Your task to perform on an android device: change alarm snooze length Image 0: 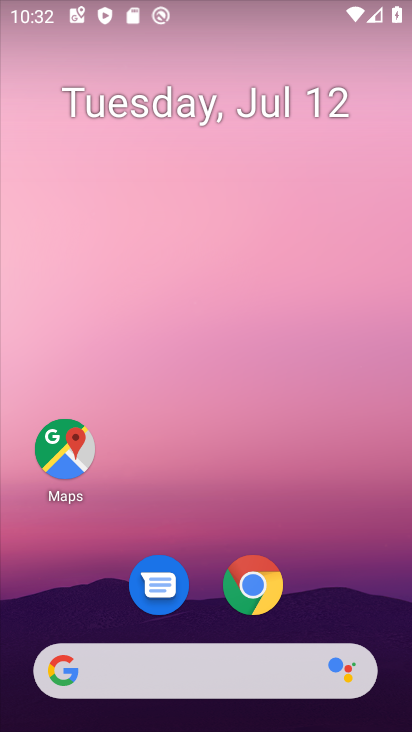
Step 0: drag from (296, 590) to (347, 6)
Your task to perform on an android device: change alarm snooze length Image 1: 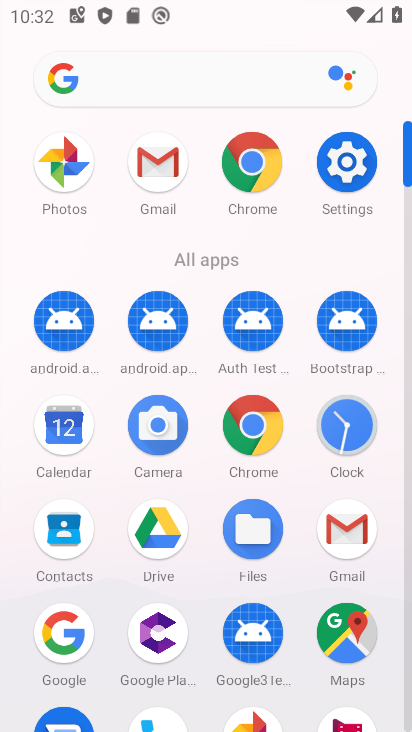
Step 1: click (342, 159)
Your task to perform on an android device: change alarm snooze length Image 2: 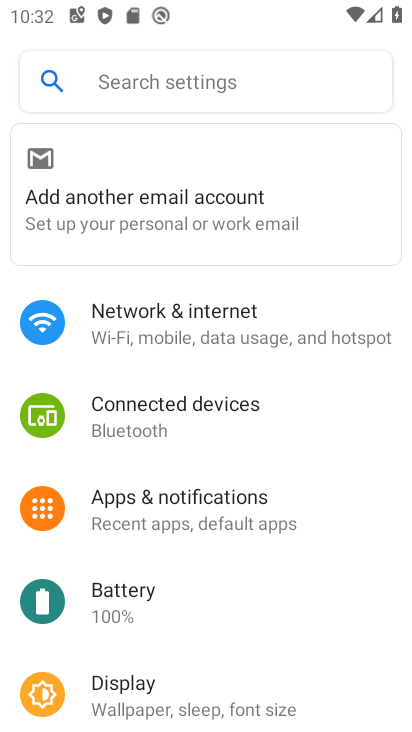
Step 2: press home button
Your task to perform on an android device: change alarm snooze length Image 3: 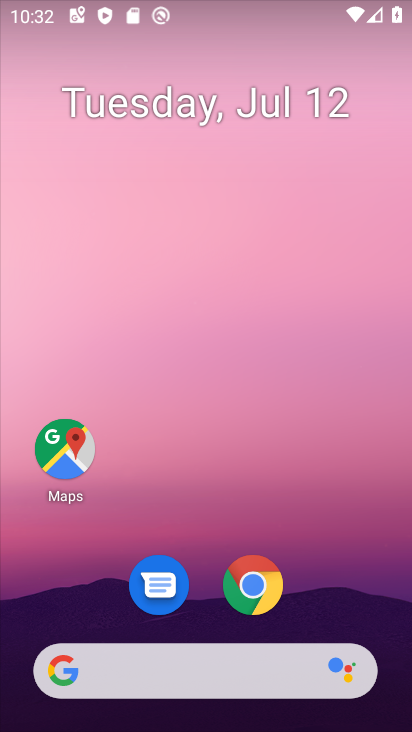
Step 3: drag from (321, 567) to (330, 37)
Your task to perform on an android device: change alarm snooze length Image 4: 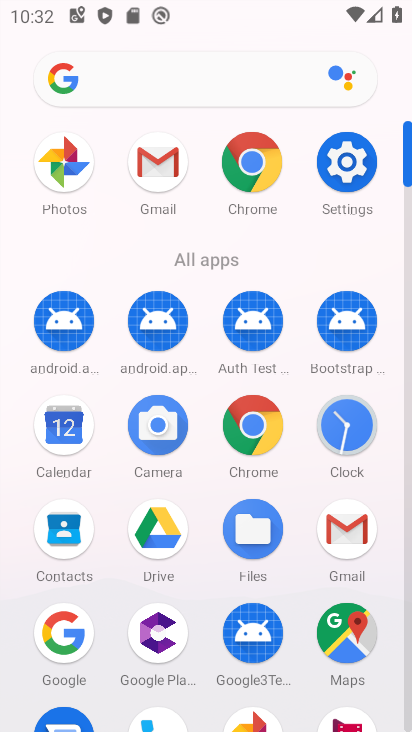
Step 4: click (354, 424)
Your task to perform on an android device: change alarm snooze length Image 5: 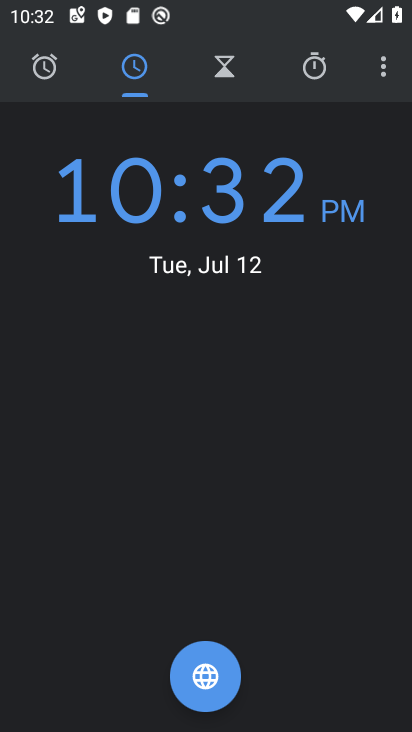
Step 5: click (45, 69)
Your task to perform on an android device: change alarm snooze length Image 6: 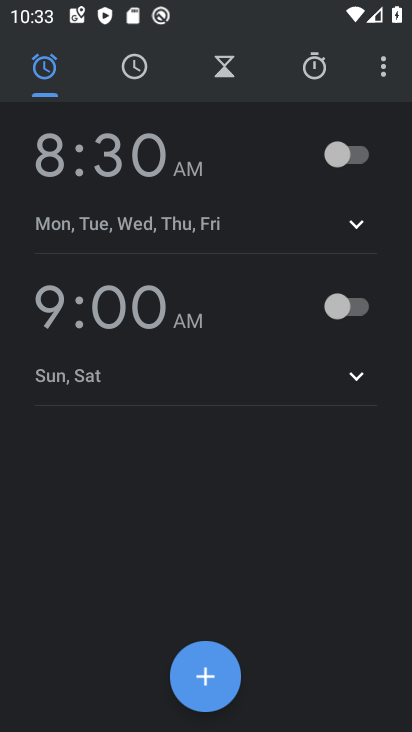
Step 6: click (383, 70)
Your task to perform on an android device: change alarm snooze length Image 7: 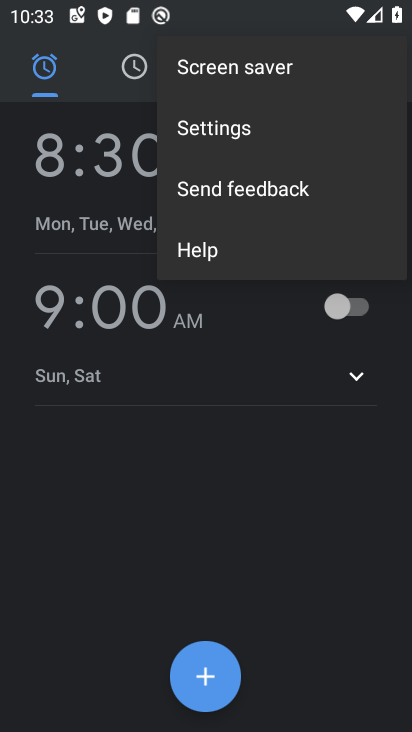
Step 7: click (256, 132)
Your task to perform on an android device: change alarm snooze length Image 8: 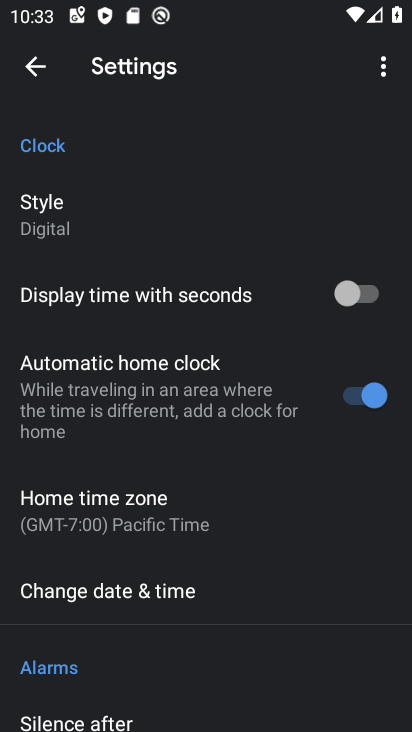
Step 8: drag from (225, 544) to (254, 21)
Your task to perform on an android device: change alarm snooze length Image 9: 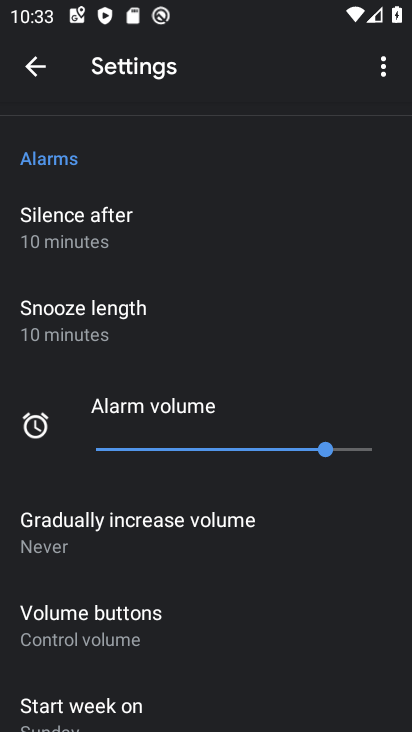
Step 9: click (146, 315)
Your task to perform on an android device: change alarm snooze length Image 10: 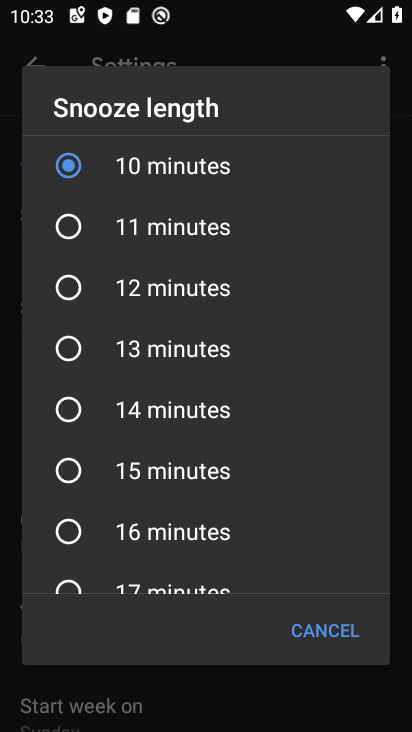
Step 10: click (62, 288)
Your task to perform on an android device: change alarm snooze length Image 11: 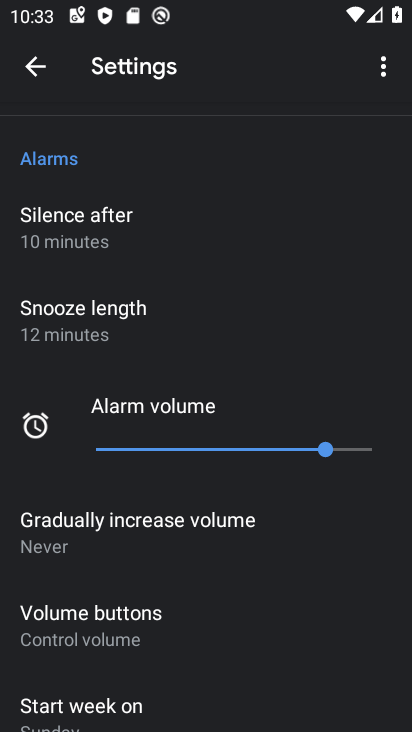
Step 11: task complete